Your task to perform on an android device: empty trash in google photos Image 0: 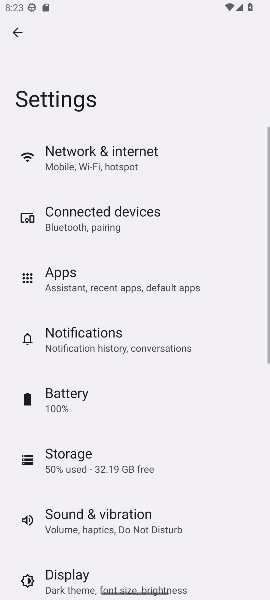
Step 0: press home button
Your task to perform on an android device: empty trash in google photos Image 1: 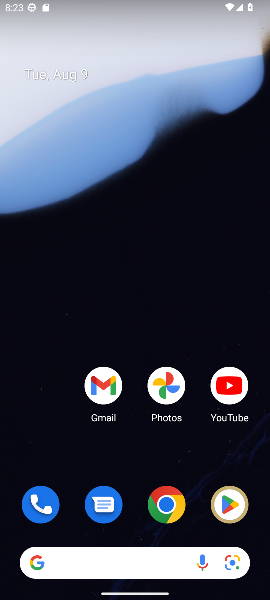
Step 1: drag from (129, 455) to (91, 184)
Your task to perform on an android device: empty trash in google photos Image 2: 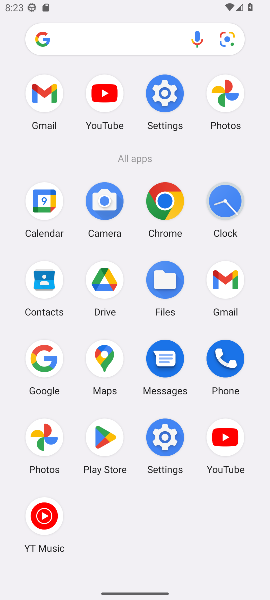
Step 2: click (36, 445)
Your task to perform on an android device: empty trash in google photos Image 3: 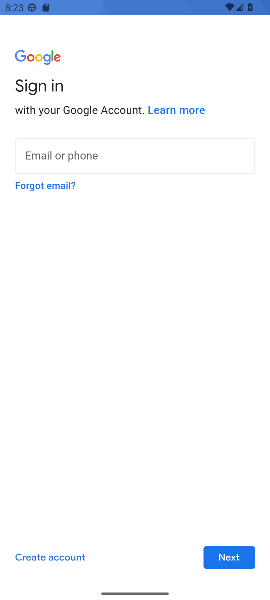
Step 3: task complete